Your task to perform on an android device: Go to Amazon Image 0: 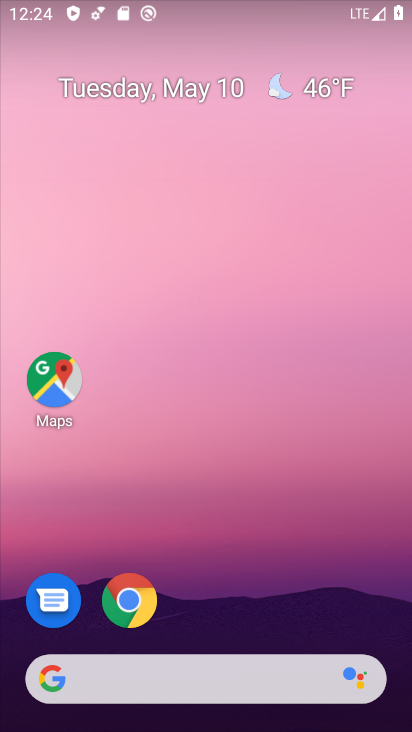
Step 0: click (140, 613)
Your task to perform on an android device: Go to Amazon Image 1: 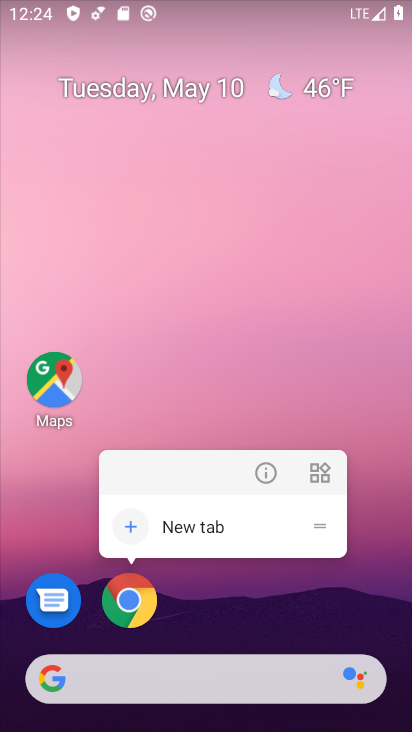
Step 1: click (129, 596)
Your task to perform on an android device: Go to Amazon Image 2: 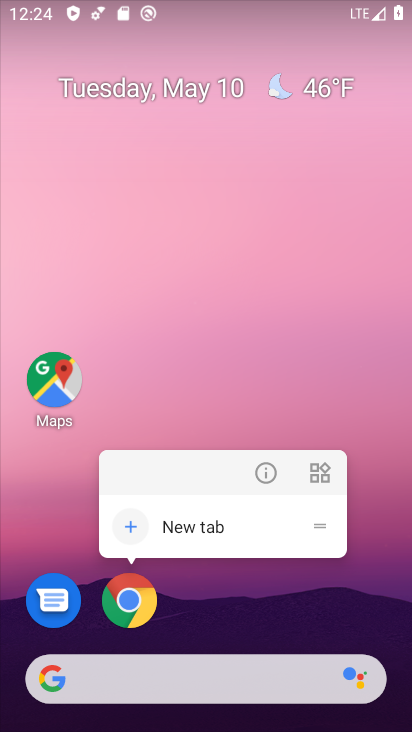
Step 2: click (135, 608)
Your task to perform on an android device: Go to Amazon Image 3: 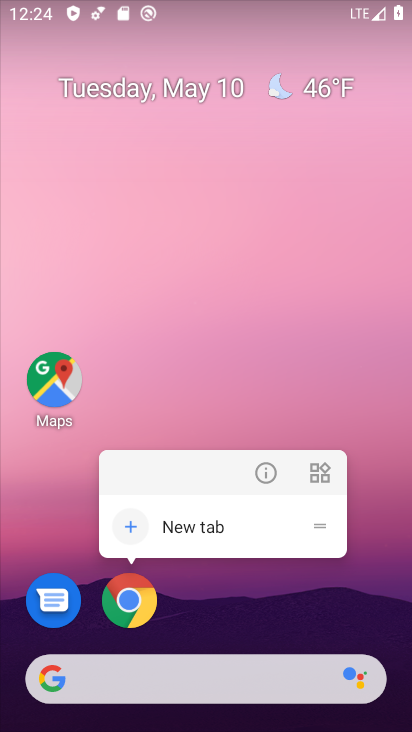
Step 3: click (132, 623)
Your task to perform on an android device: Go to Amazon Image 4: 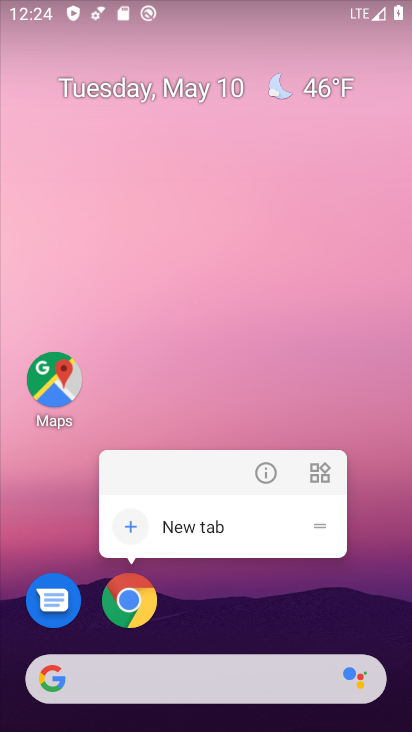
Step 4: click (132, 609)
Your task to perform on an android device: Go to Amazon Image 5: 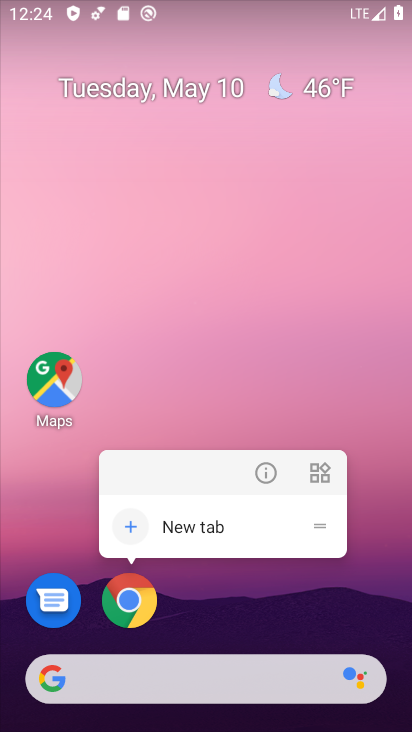
Step 5: click (135, 596)
Your task to perform on an android device: Go to Amazon Image 6: 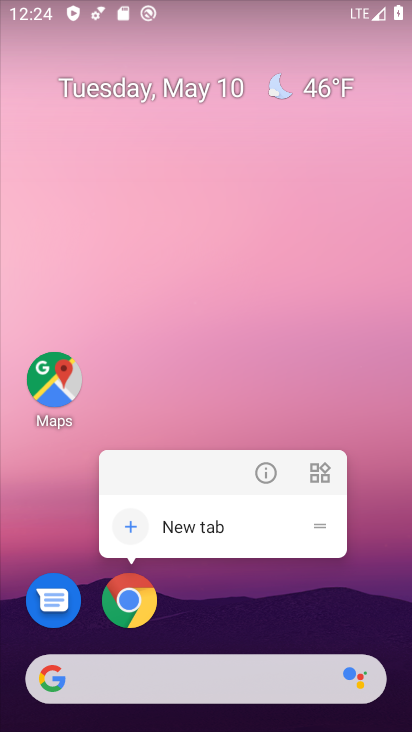
Step 6: click (140, 609)
Your task to perform on an android device: Go to Amazon Image 7: 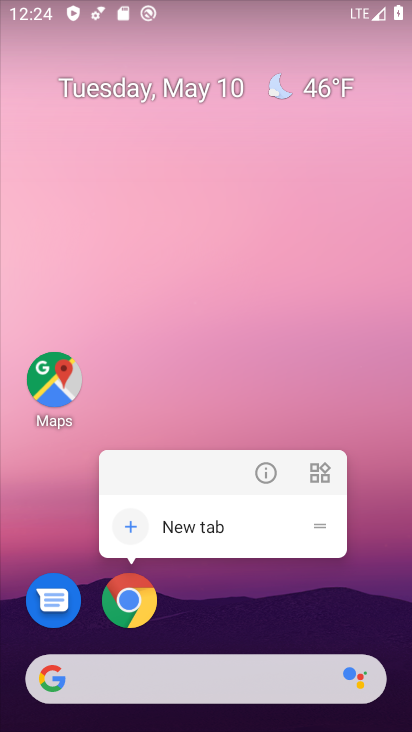
Step 7: click (124, 616)
Your task to perform on an android device: Go to Amazon Image 8: 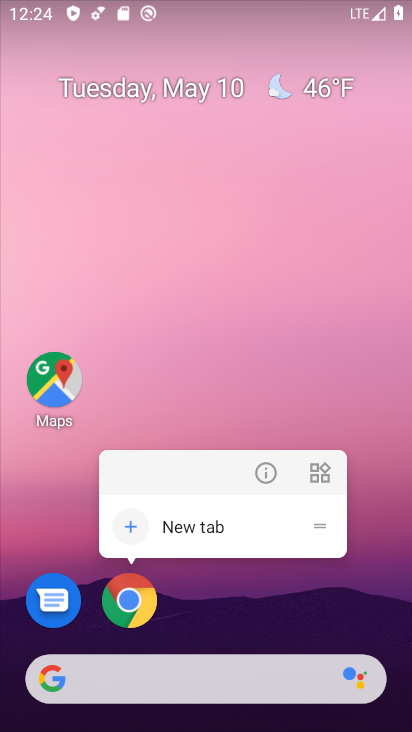
Step 8: click (123, 594)
Your task to perform on an android device: Go to Amazon Image 9: 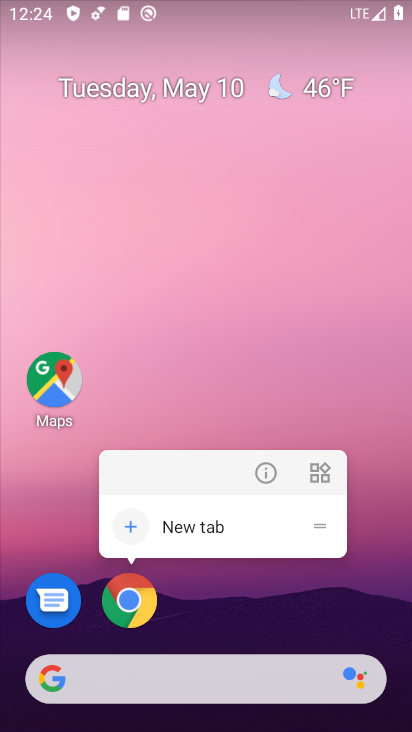
Step 9: click (113, 620)
Your task to perform on an android device: Go to Amazon Image 10: 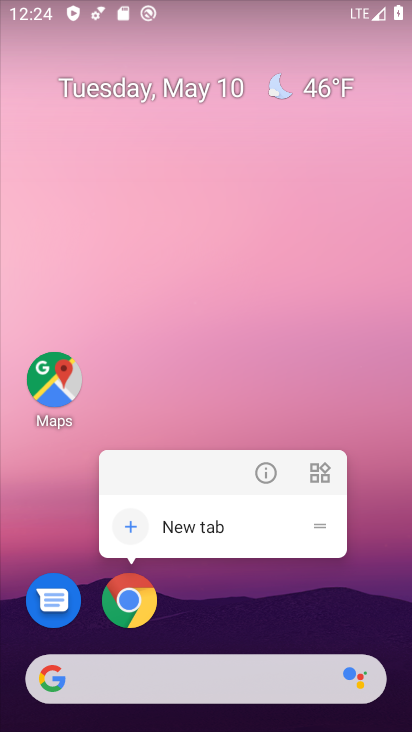
Step 10: click (158, 606)
Your task to perform on an android device: Go to Amazon Image 11: 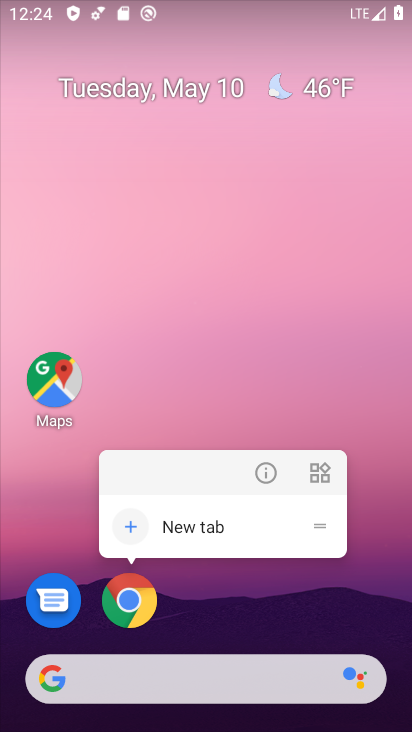
Step 11: click (126, 594)
Your task to perform on an android device: Go to Amazon Image 12: 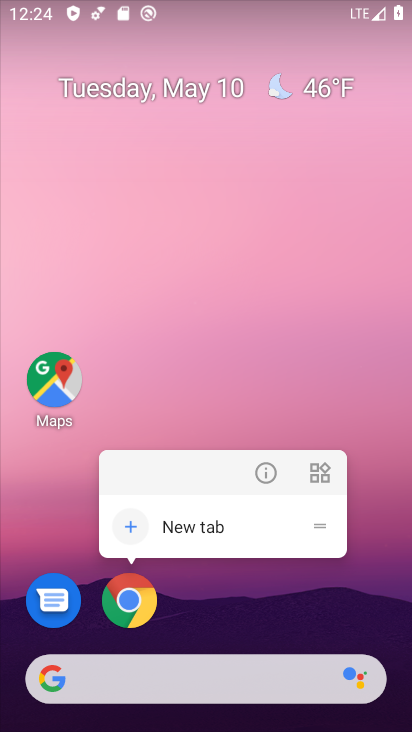
Step 12: click (123, 614)
Your task to perform on an android device: Go to Amazon Image 13: 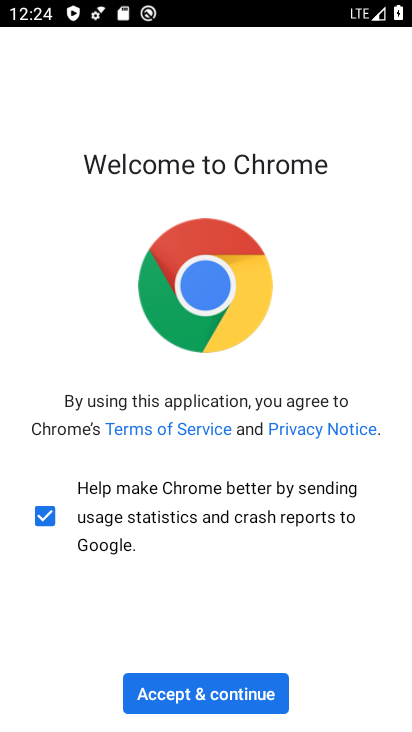
Step 13: click (260, 691)
Your task to perform on an android device: Go to Amazon Image 14: 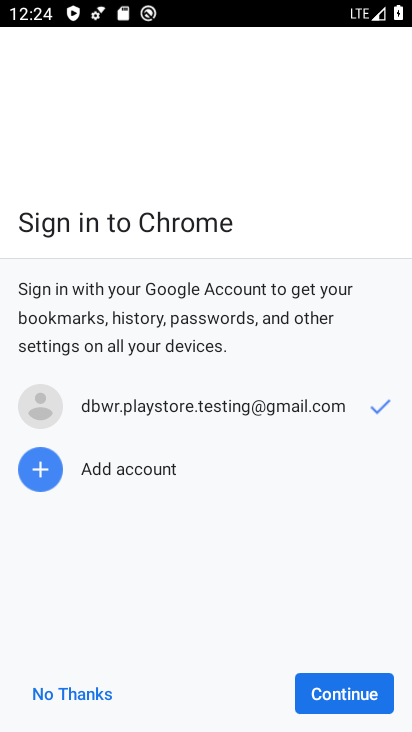
Step 14: click (372, 679)
Your task to perform on an android device: Go to Amazon Image 15: 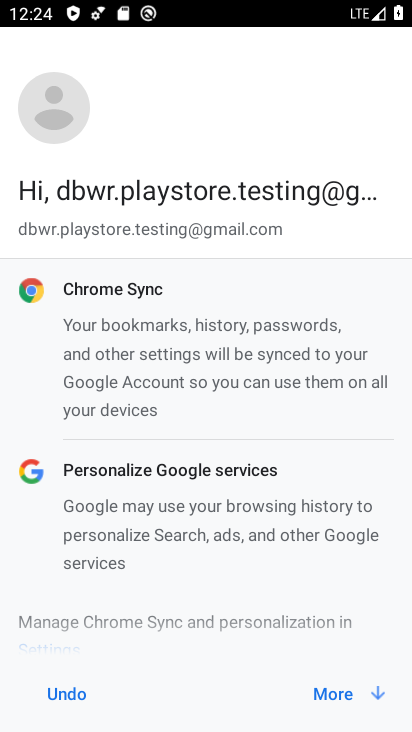
Step 15: click (361, 709)
Your task to perform on an android device: Go to Amazon Image 16: 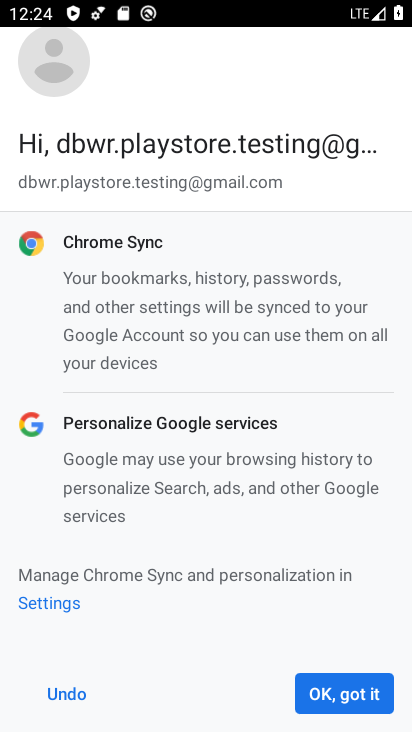
Step 16: click (340, 692)
Your task to perform on an android device: Go to Amazon Image 17: 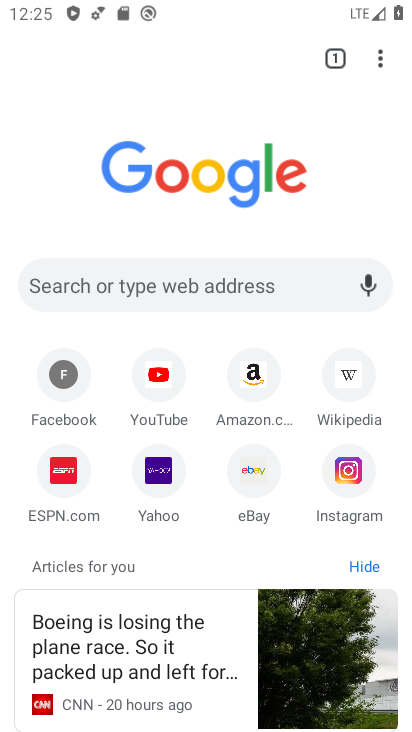
Step 17: click (275, 387)
Your task to perform on an android device: Go to Amazon Image 18: 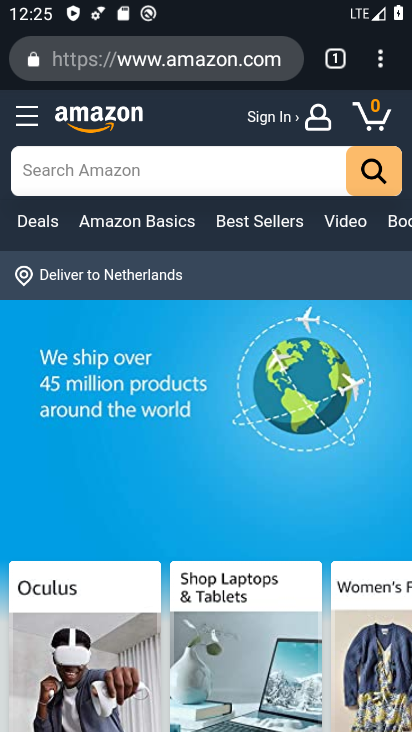
Step 18: task complete